Your task to perform on an android device: uninstall "Chime – Mobile Banking" Image 0: 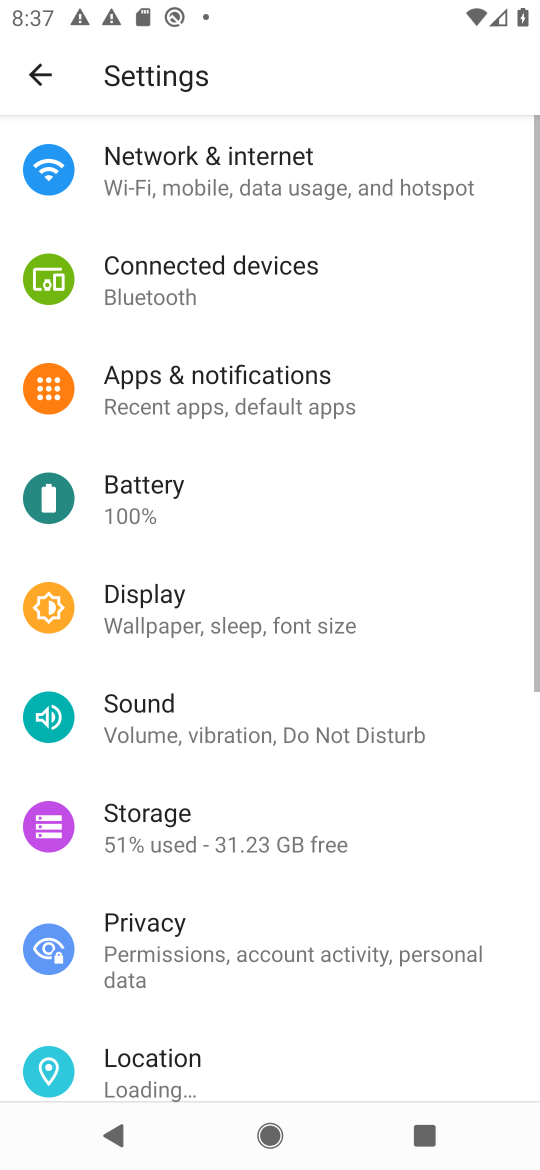
Step 0: press home button
Your task to perform on an android device: uninstall "Chime – Mobile Banking" Image 1: 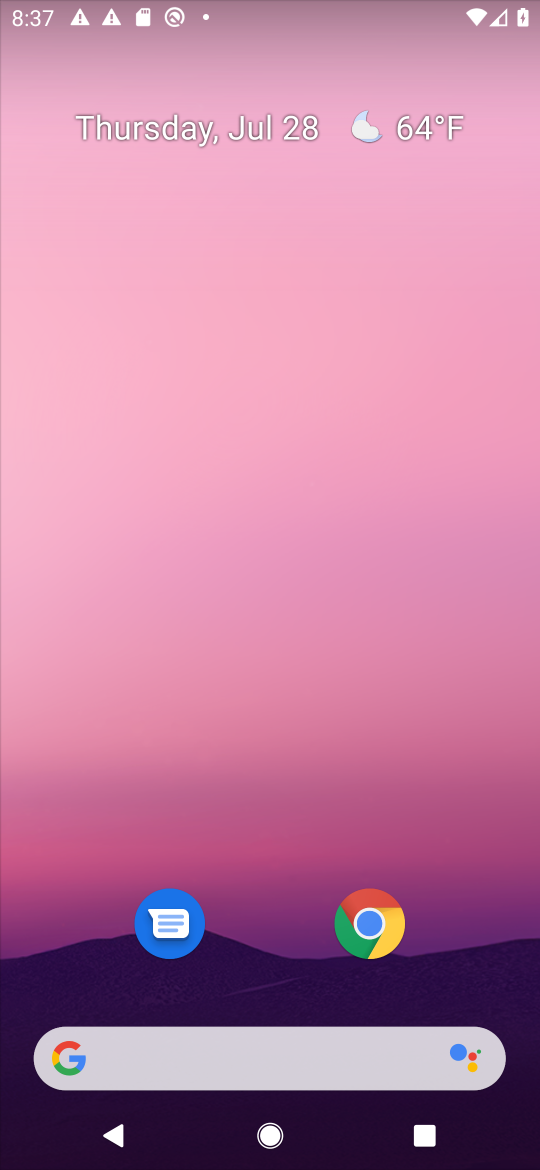
Step 1: drag from (476, 928) to (390, 107)
Your task to perform on an android device: uninstall "Chime – Mobile Banking" Image 2: 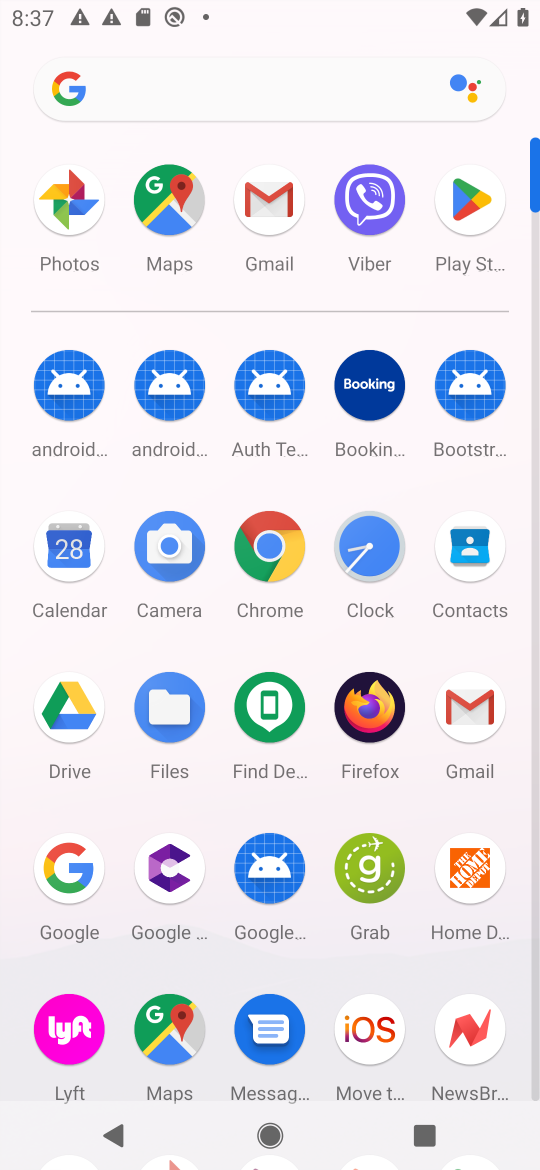
Step 2: click (470, 210)
Your task to perform on an android device: uninstall "Chime – Mobile Banking" Image 3: 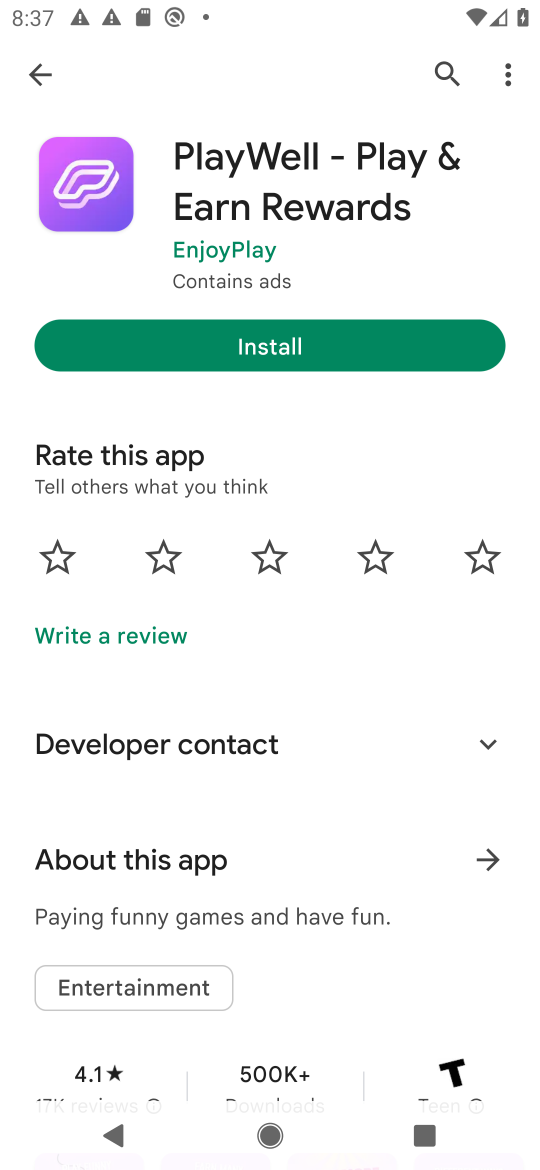
Step 3: click (26, 77)
Your task to perform on an android device: uninstall "Chime – Mobile Banking" Image 4: 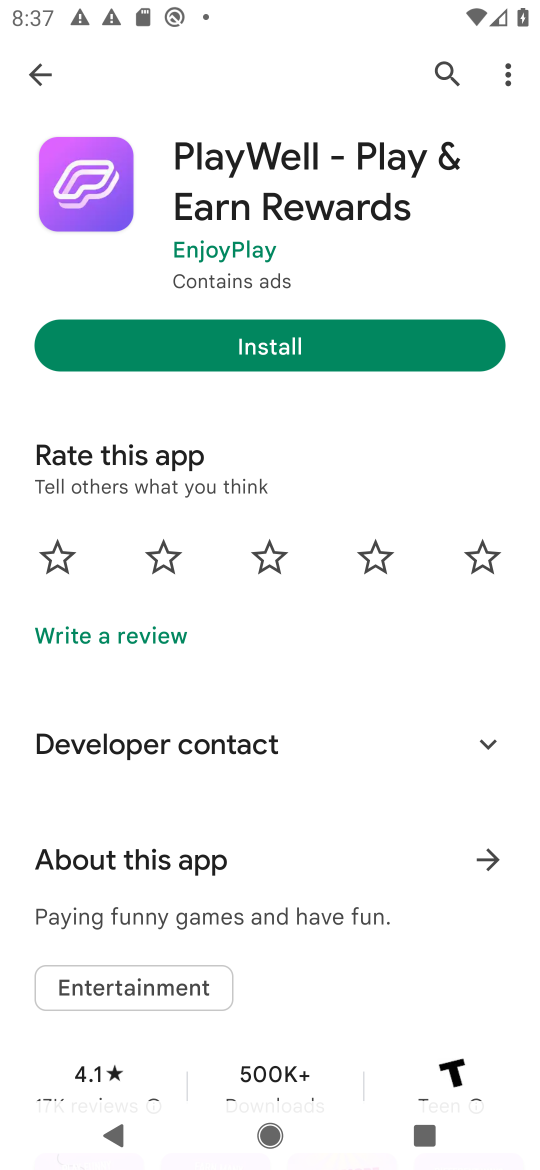
Step 4: click (43, 80)
Your task to perform on an android device: uninstall "Chime – Mobile Banking" Image 5: 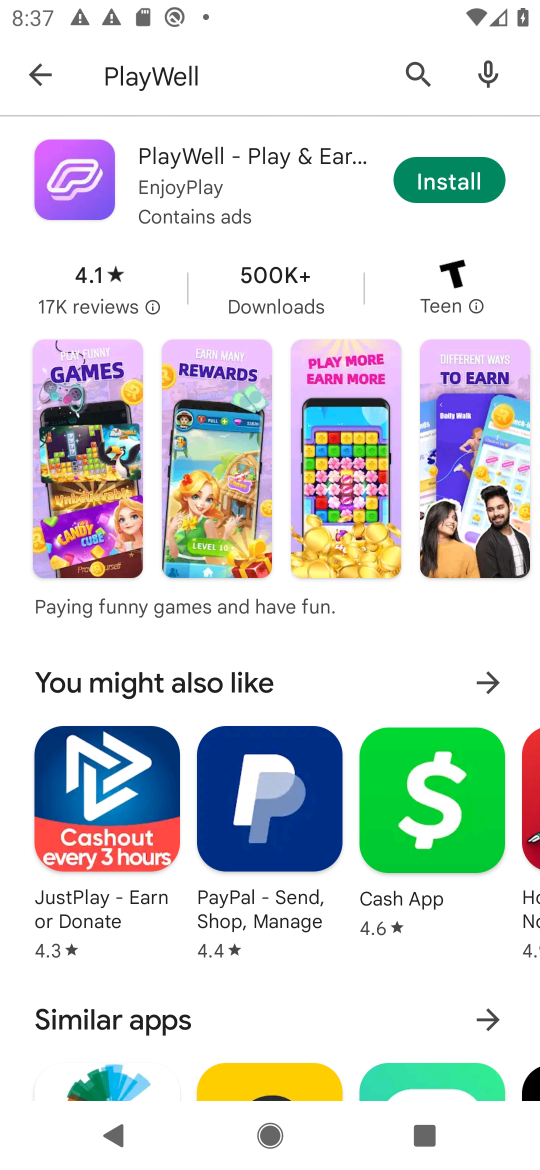
Step 5: click (424, 77)
Your task to perform on an android device: uninstall "Chime – Mobile Banking" Image 6: 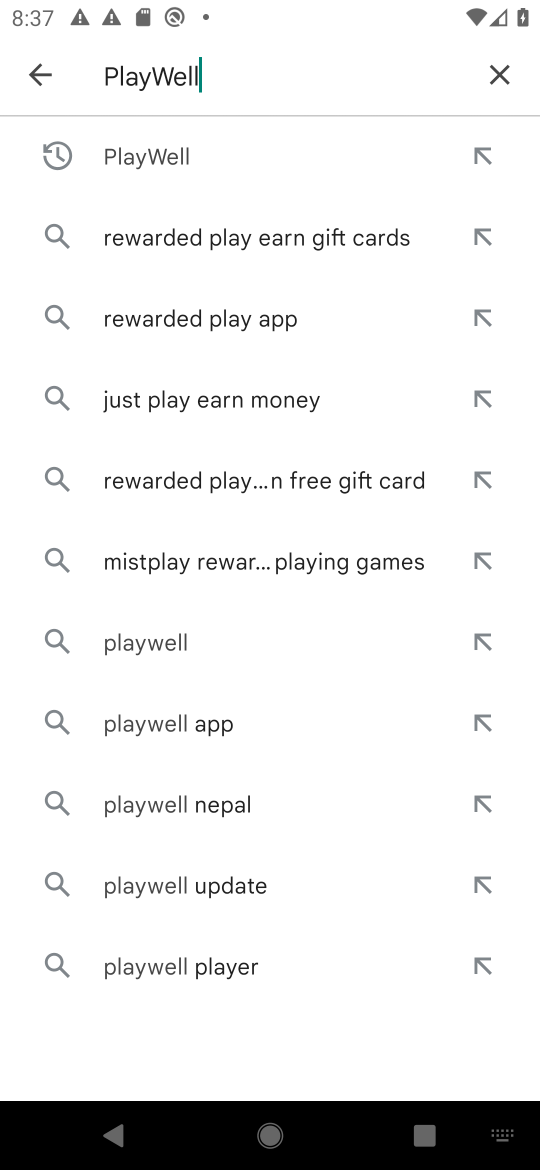
Step 6: click (519, 80)
Your task to perform on an android device: uninstall "Chime – Mobile Banking" Image 7: 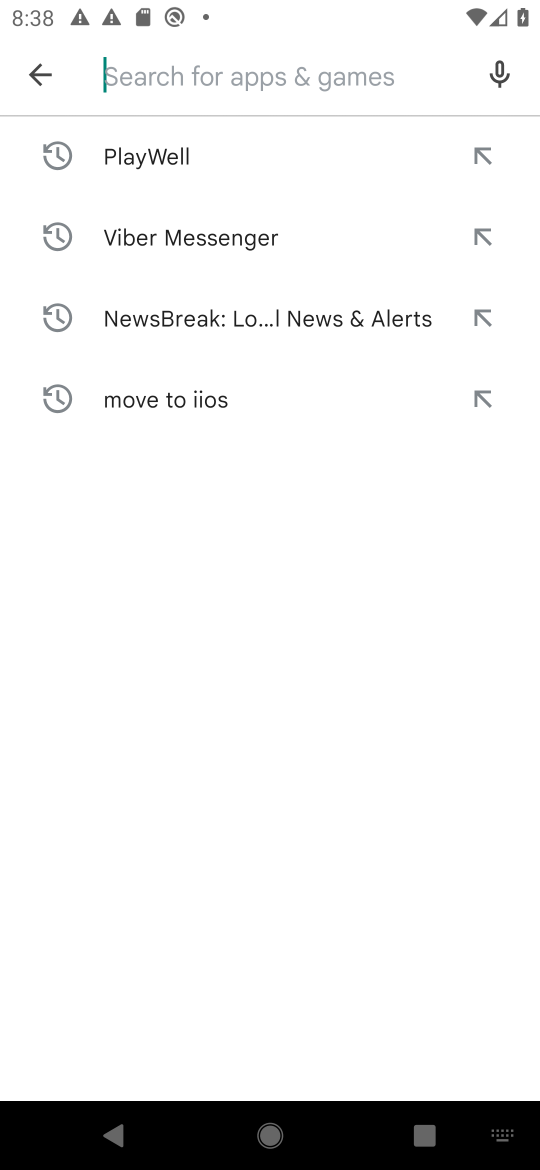
Step 7: type "Chime - Mobile Banking"
Your task to perform on an android device: uninstall "Chime – Mobile Banking" Image 8: 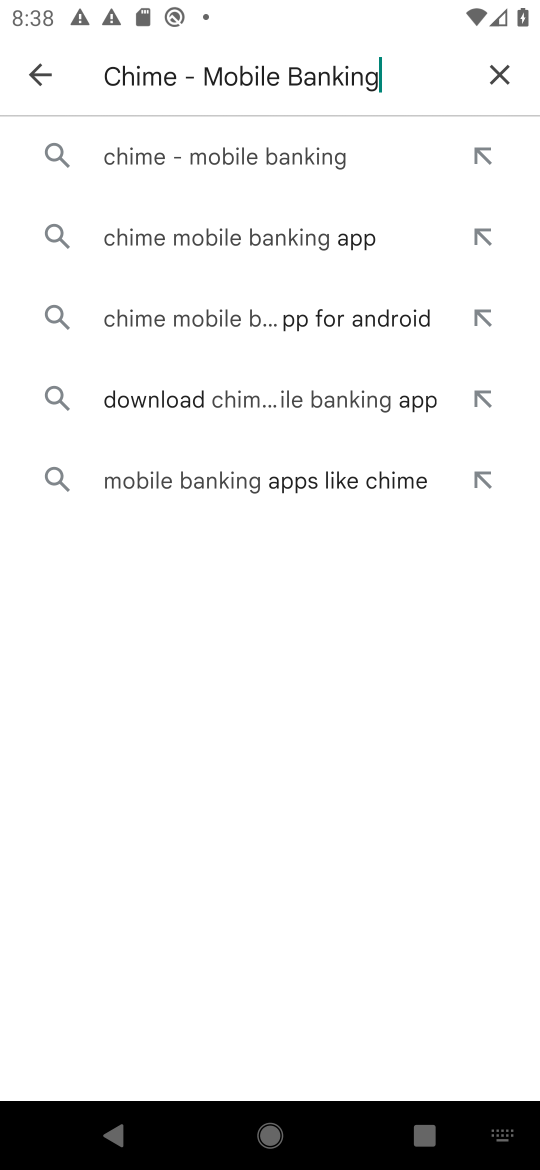
Step 8: press enter
Your task to perform on an android device: uninstall "Chime – Mobile Banking" Image 9: 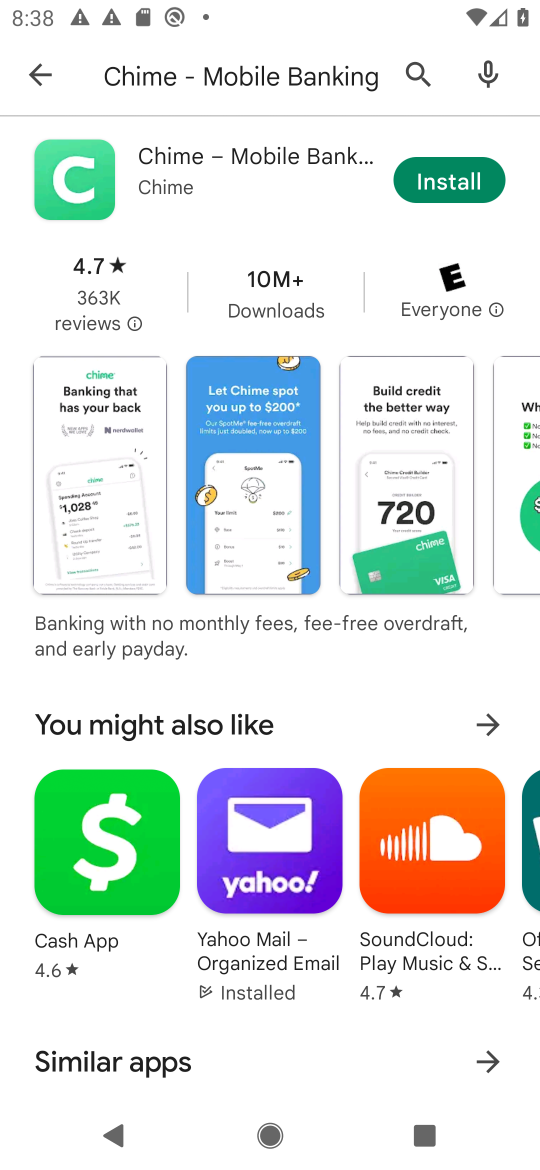
Step 9: click (244, 187)
Your task to perform on an android device: uninstall "Chime – Mobile Banking" Image 10: 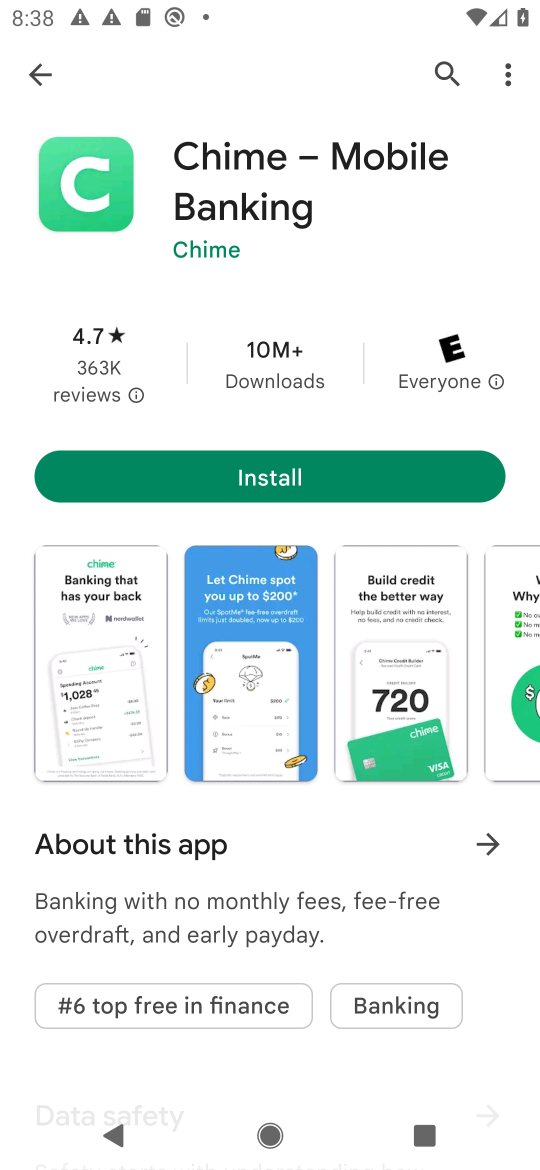
Step 10: task complete